Your task to perform on an android device: open app "Duolingo: language lessons" Image 0: 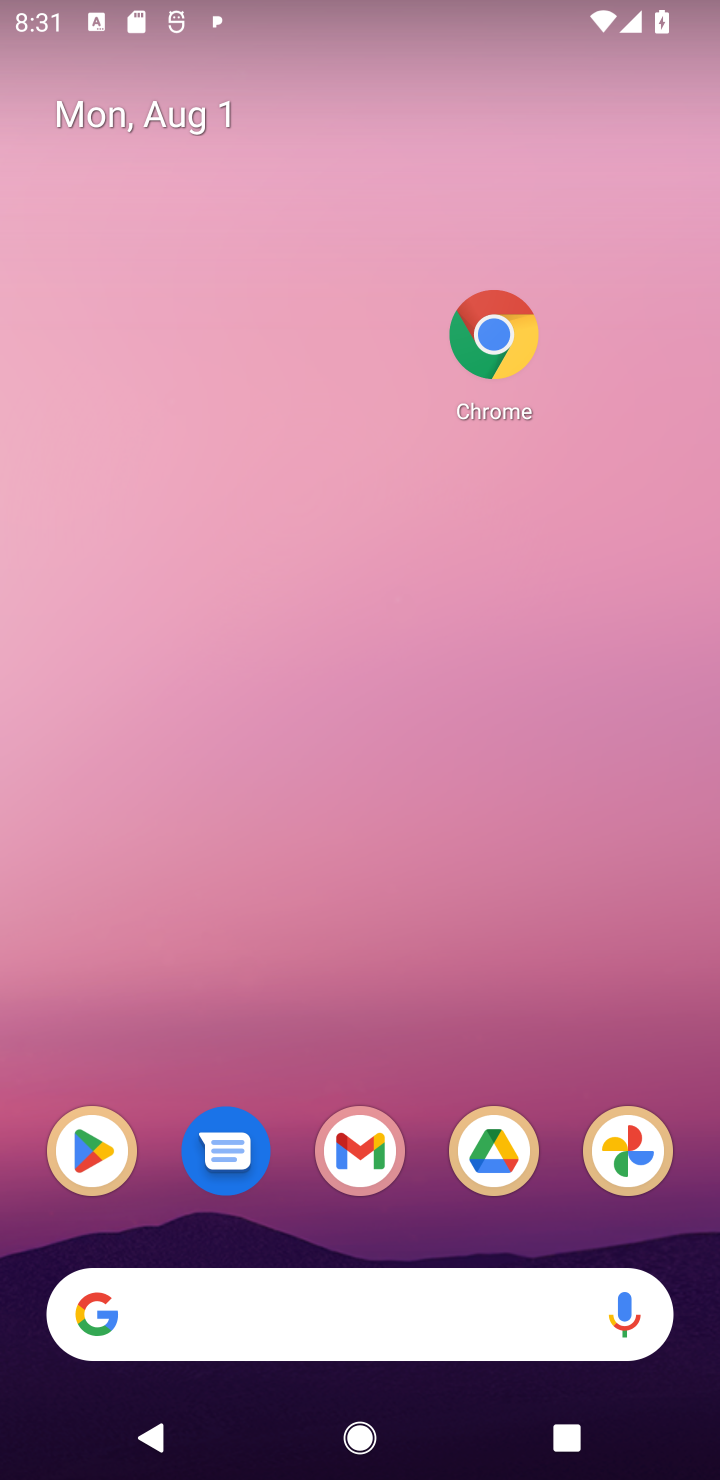
Step 0: click (84, 1158)
Your task to perform on an android device: open app "Duolingo: language lessons" Image 1: 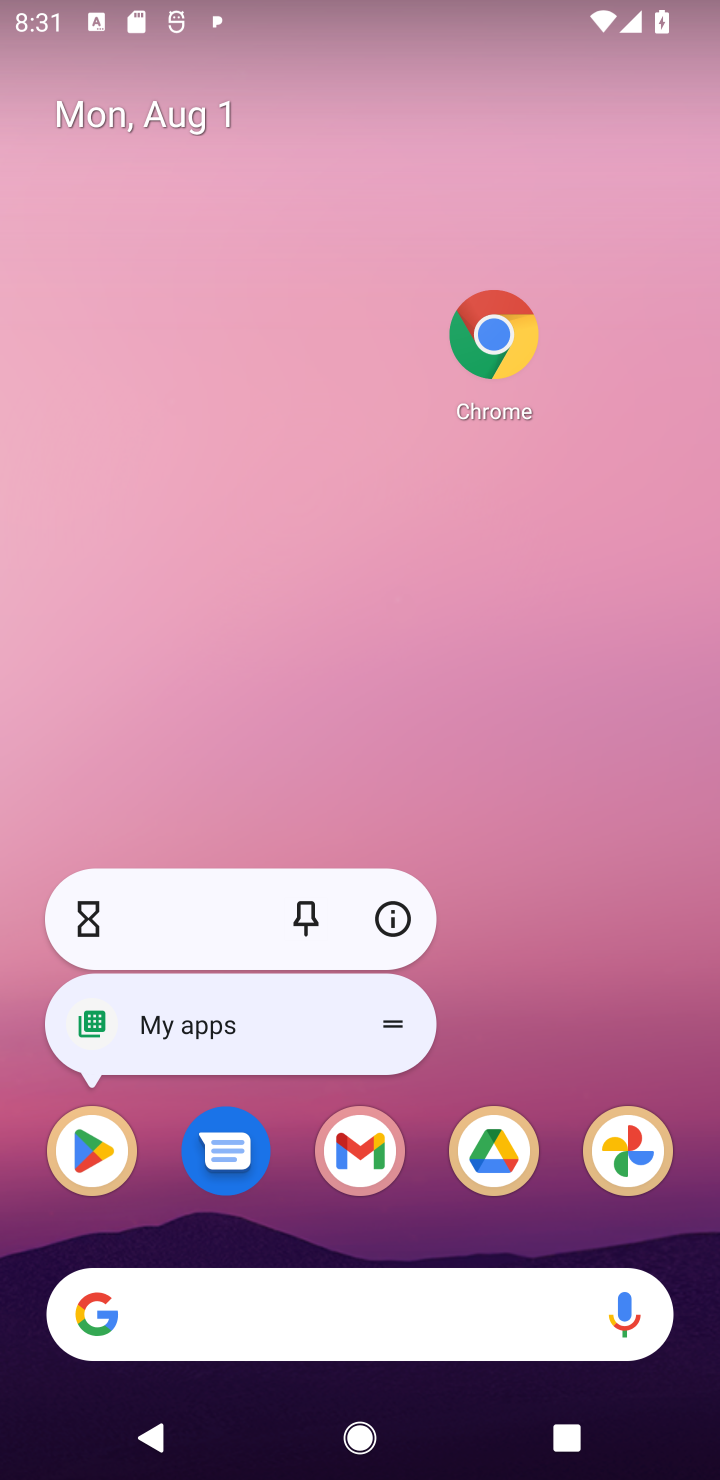
Step 1: click (86, 1158)
Your task to perform on an android device: open app "Duolingo: language lessons" Image 2: 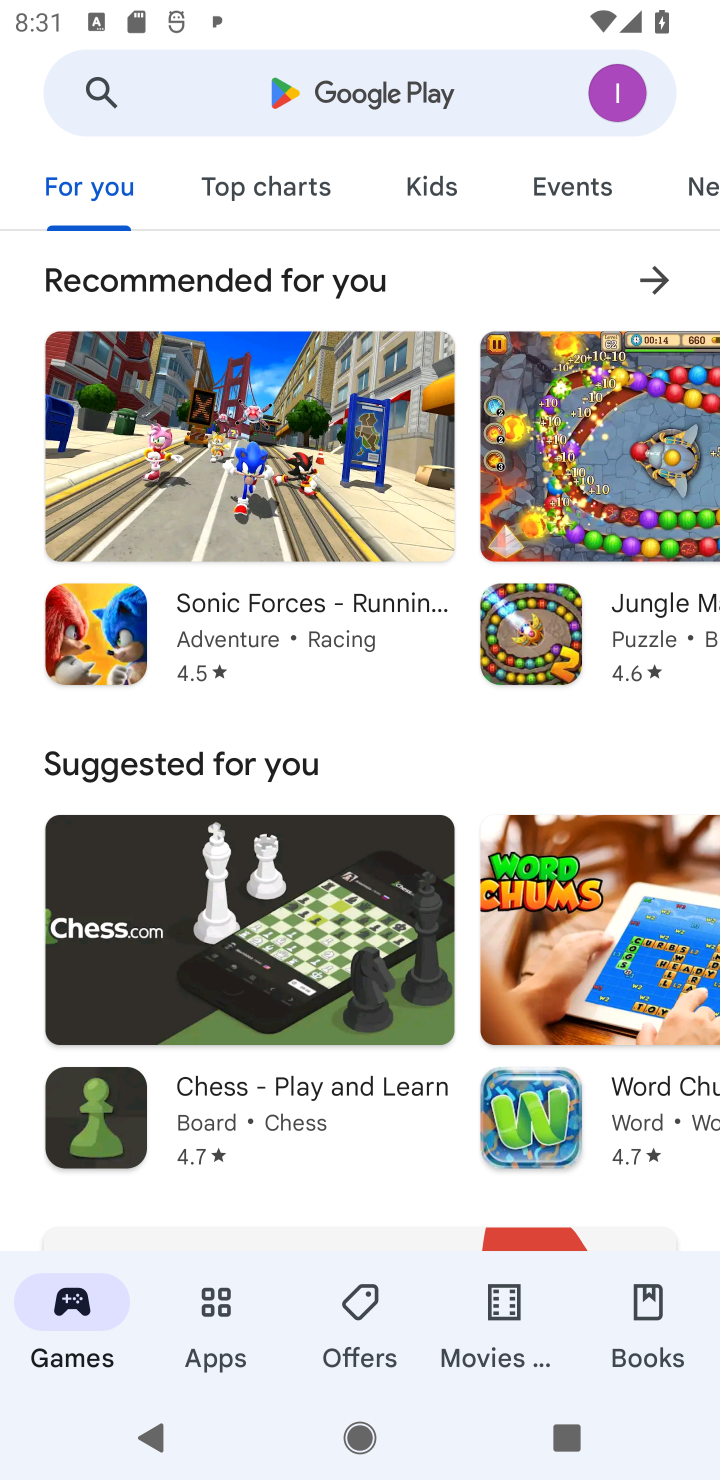
Step 2: click (338, 77)
Your task to perform on an android device: open app "Duolingo: language lessons" Image 3: 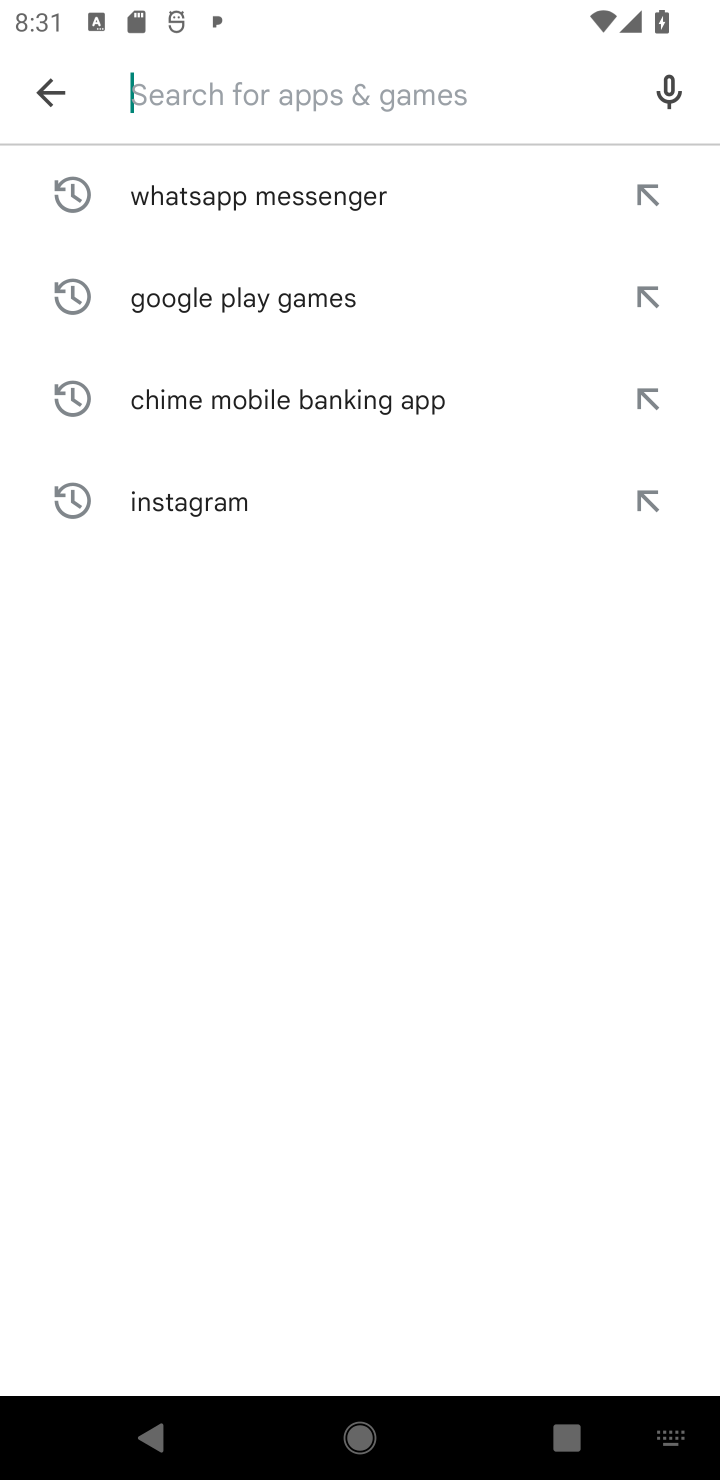
Step 3: type "Duolingo: language lessons"
Your task to perform on an android device: open app "Duolingo: language lessons" Image 4: 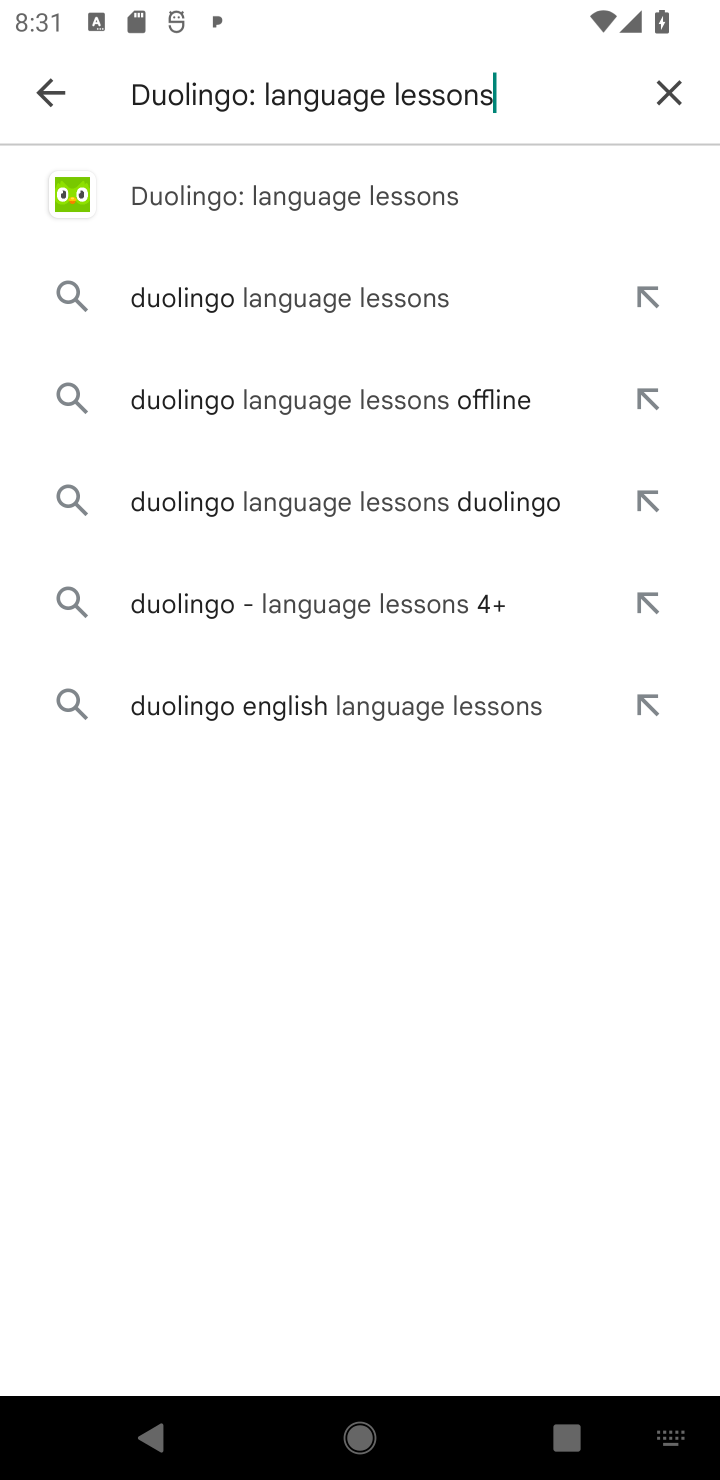
Step 4: click (165, 191)
Your task to perform on an android device: open app "Duolingo: language lessons" Image 5: 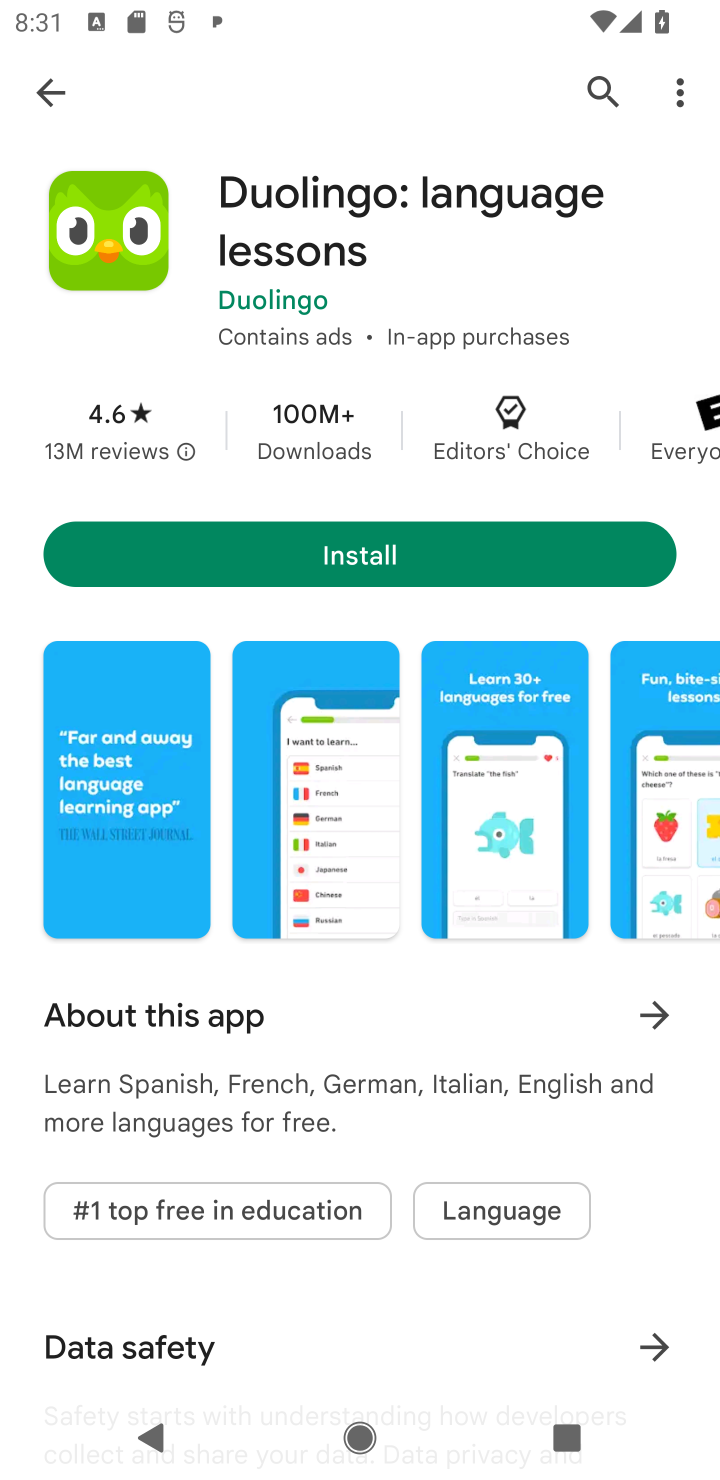
Step 5: task complete